Your task to perform on an android device: turn on javascript in the chrome app Image 0: 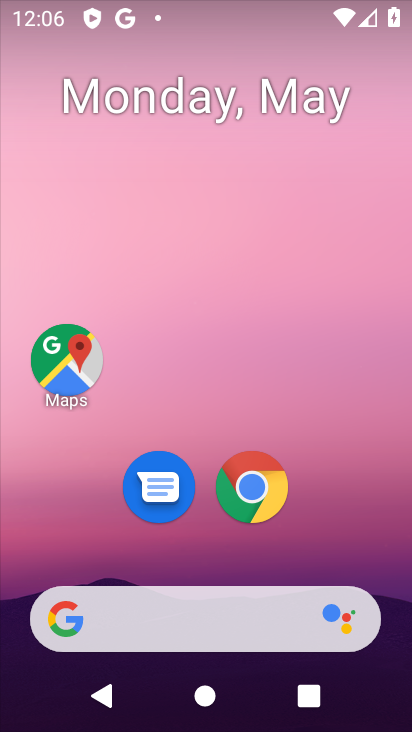
Step 0: click (256, 480)
Your task to perform on an android device: turn on javascript in the chrome app Image 1: 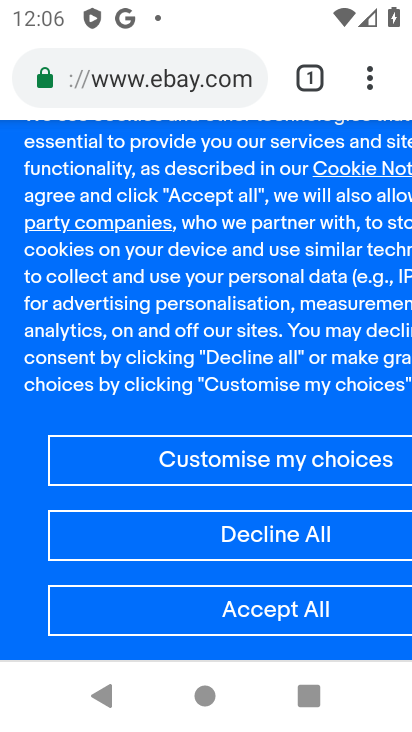
Step 1: click (366, 85)
Your task to perform on an android device: turn on javascript in the chrome app Image 2: 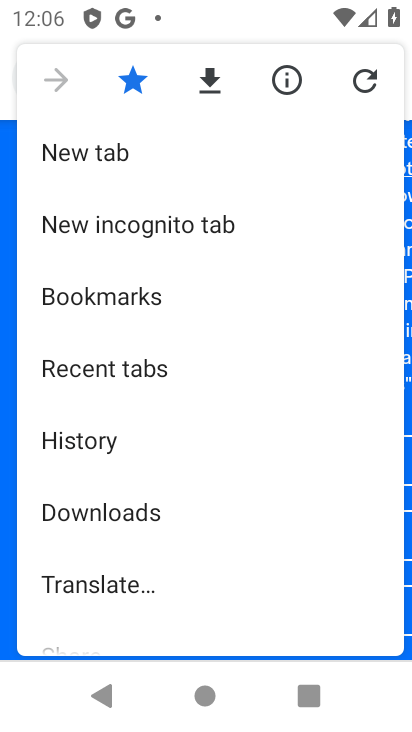
Step 2: drag from (143, 600) to (148, 131)
Your task to perform on an android device: turn on javascript in the chrome app Image 3: 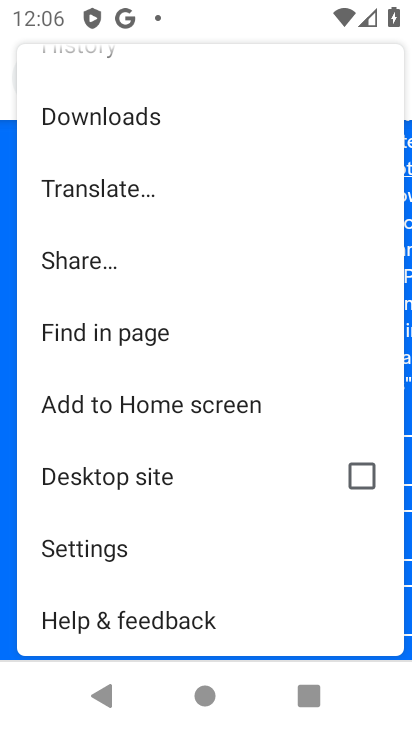
Step 3: click (110, 538)
Your task to perform on an android device: turn on javascript in the chrome app Image 4: 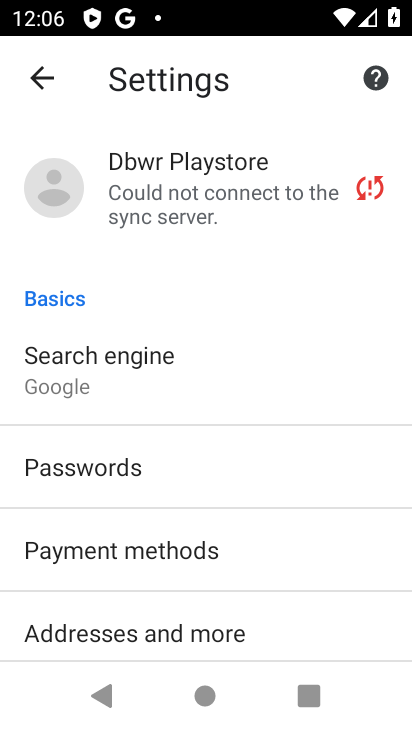
Step 4: drag from (170, 587) to (169, 155)
Your task to perform on an android device: turn on javascript in the chrome app Image 5: 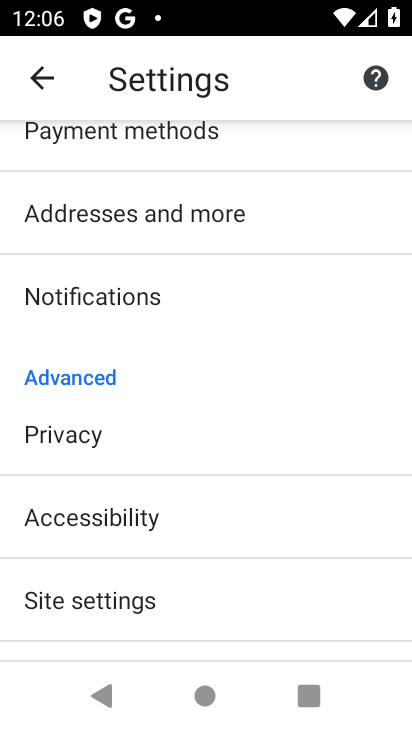
Step 5: click (178, 594)
Your task to perform on an android device: turn on javascript in the chrome app Image 6: 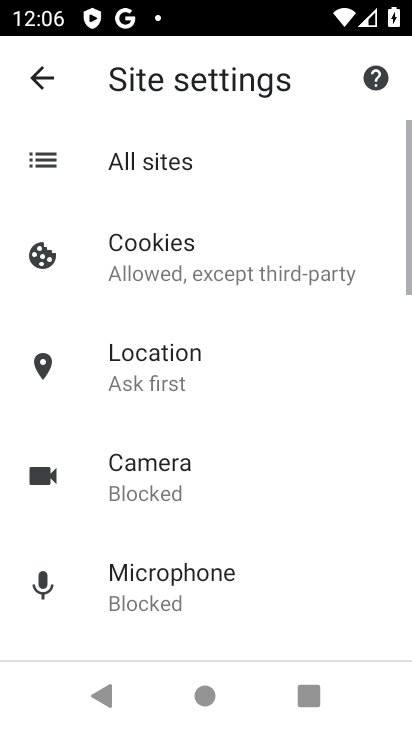
Step 6: drag from (185, 610) to (192, 251)
Your task to perform on an android device: turn on javascript in the chrome app Image 7: 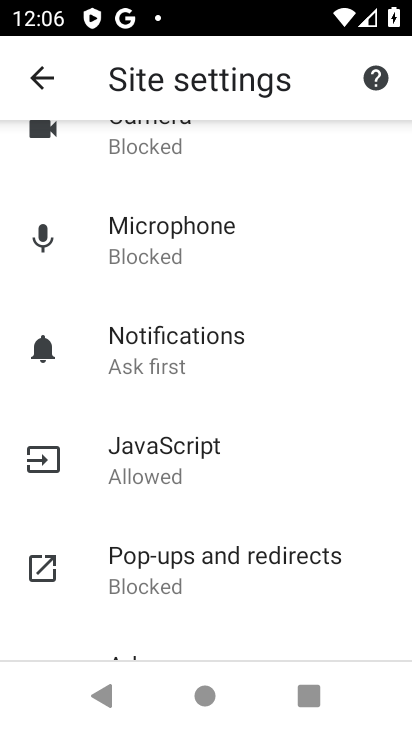
Step 7: click (179, 447)
Your task to perform on an android device: turn on javascript in the chrome app Image 8: 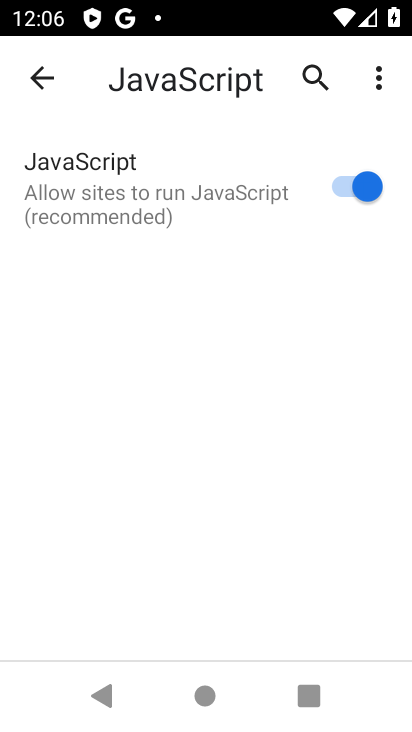
Step 8: task complete